Your task to perform on an android device: change your default location settings in chrome Image 0: 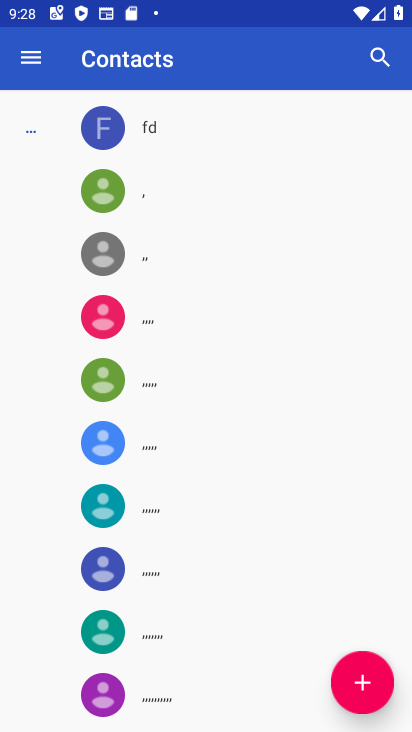
Step 0: drag from (228, 609) to (161, 75)
Your task to perform on an android device: change your default location settings in chrome Image 1: 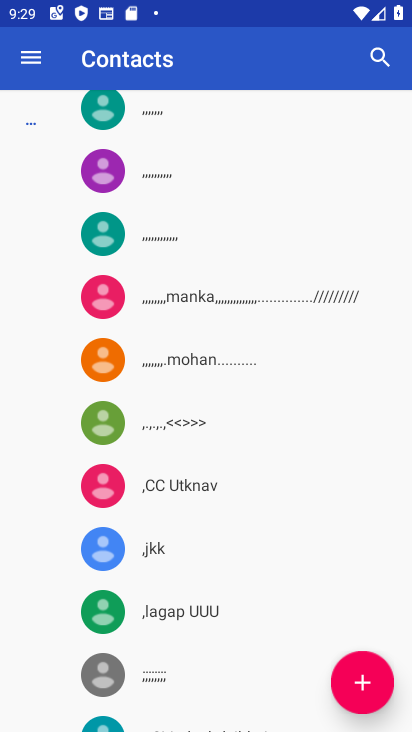
Step 1: press home button
Your task to perform on an android device: change your default location settings in chrome Image 2: 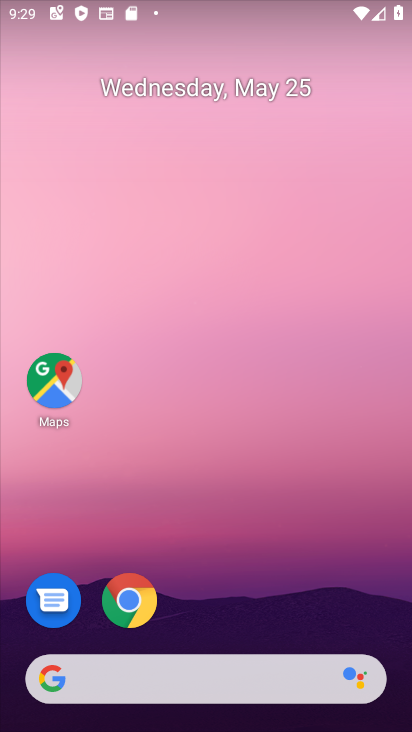
Step 2: drag from (248, 590) to (230, 14)
Your task to perform on an android device: change your default location settings in chrome Image 3: 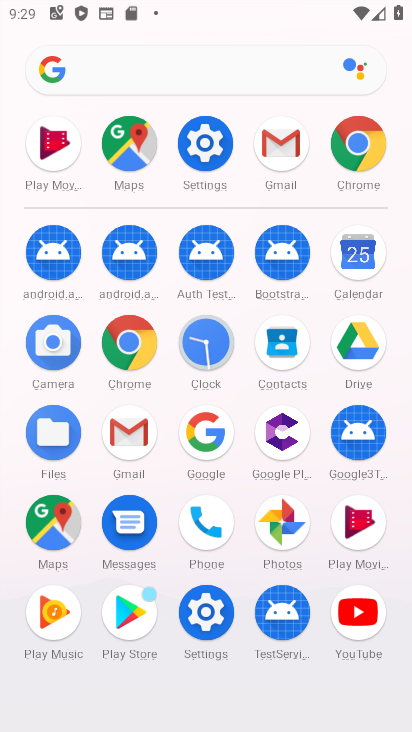
Step 3: drag from (15, 563) to (22, 307)
Your task to perform on an android device: change your default location settings in chrome Image 4: 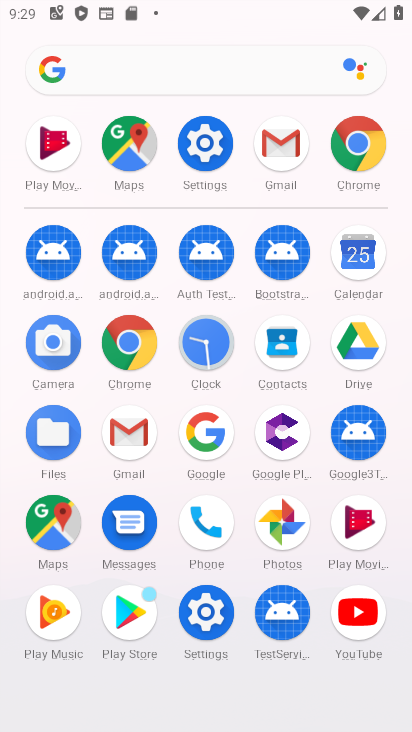
Step 4: click (357, 137)
Your task to perform on an android device: change your default location settings in chrome Image 5: 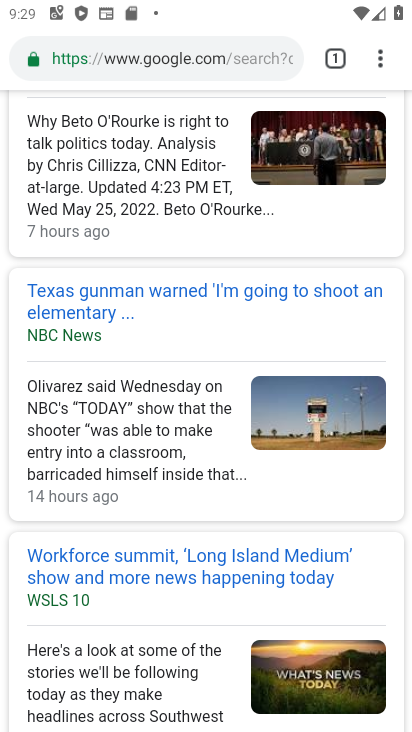
Step 5: drag from (376, 60) to (182, 620)
Your task to perform on an android device: change your default location settings in chrome Image 6: 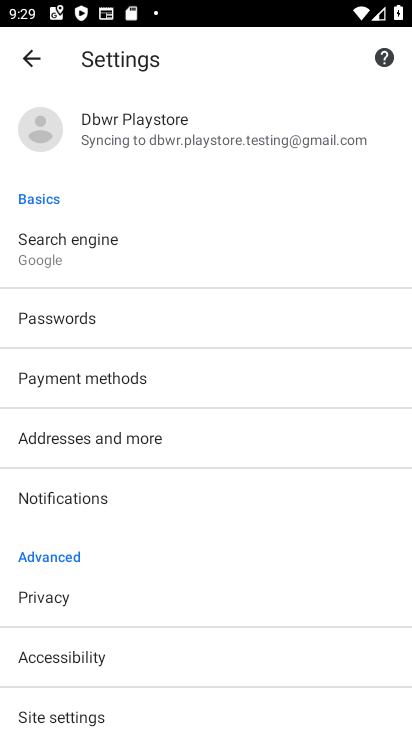
Step 6: drag from (222, 615) to (233, 257)
Your task to perform on an android device: change your default location settings in chrome Image 7: 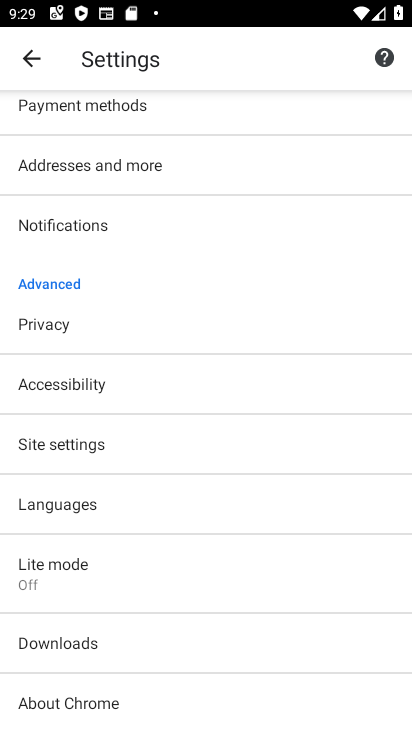
Step 7: click (86, 436)
Your task to perform on an android device: change your default location settings in chrome Image 8: 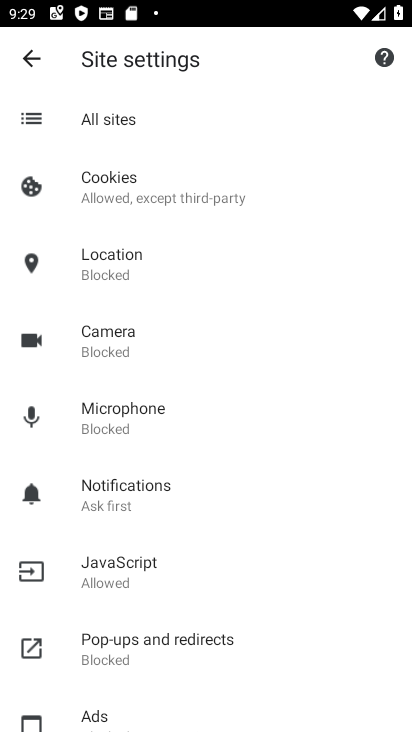
Step 8: click (156, 253)
Your task to perform on an android device: change your default location settings in chrome Image 9: 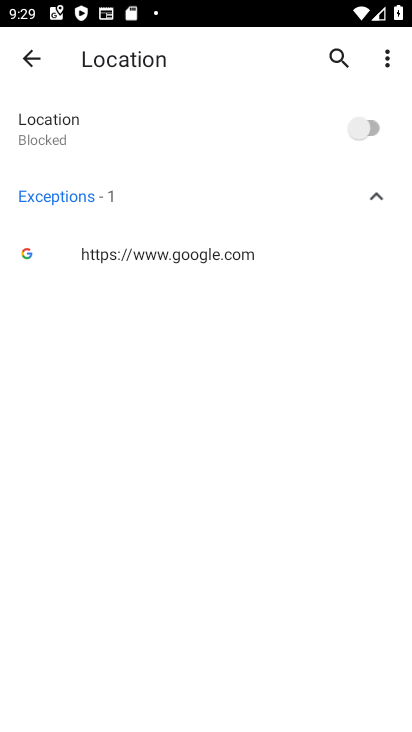
Step 9: click (367, 126)
Your task to perform on an android device: change your default location settings in chrome Image 10: 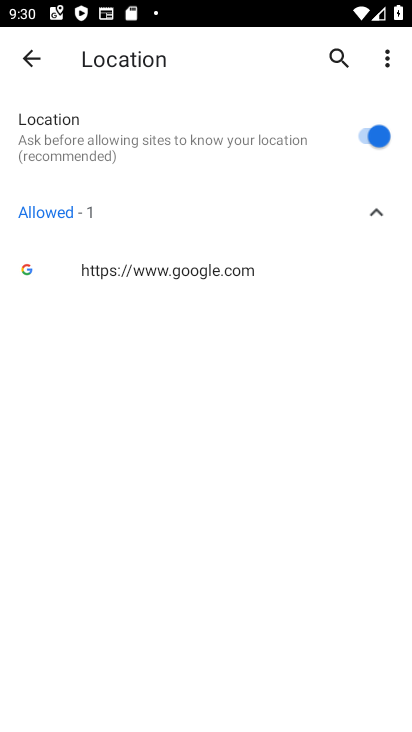
Step 10: task complete